Your task to perform on an android device: Open battery settings Image 0: 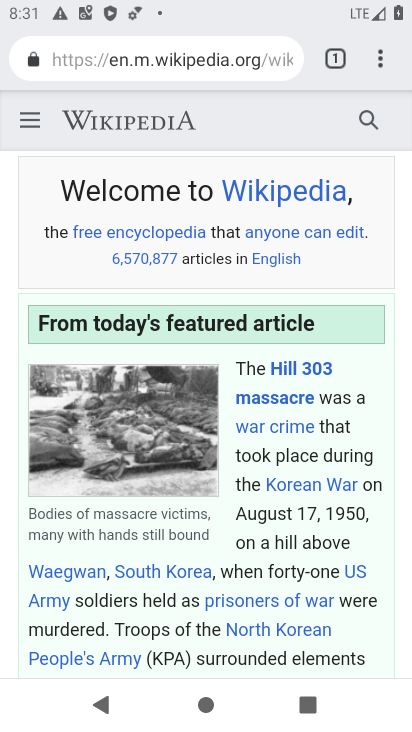
Step 0: press home button
Your task to perform on an android device: Open battery settings Image 1: 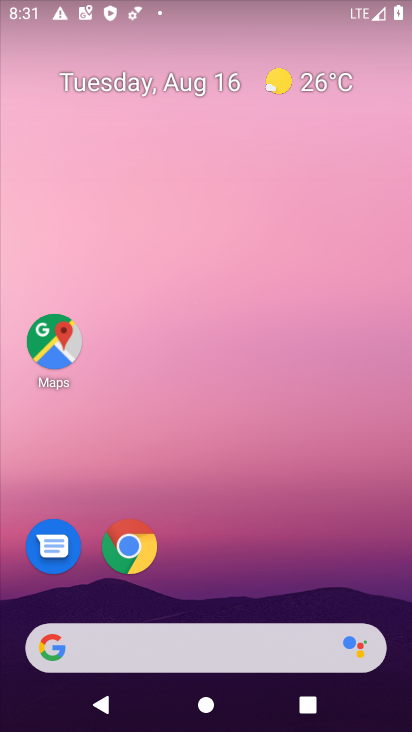
Step 1: drag from (224, 578) to (248, 12)
Your task to perform on an android device: Open battery settings Image 2: 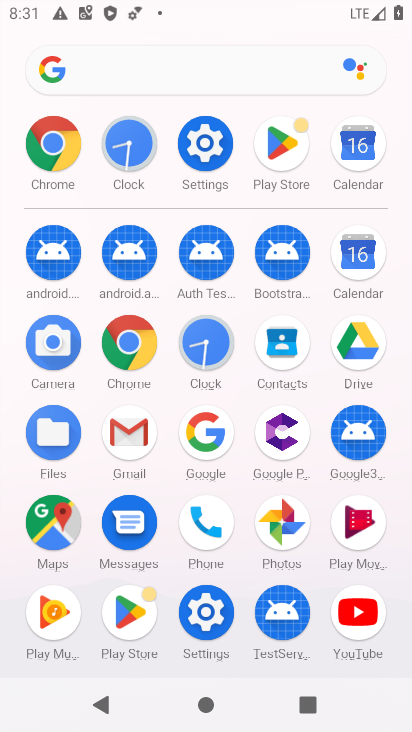
Step 2: click (208, 131)
Your task to perform on an android device: Open battery settings Image 3: 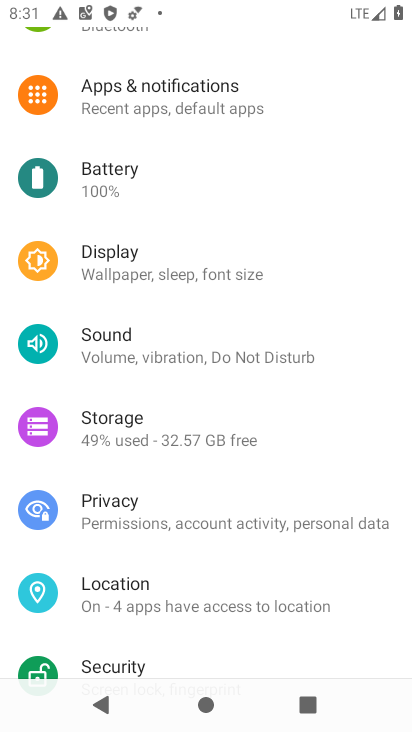
Step 3: click (146, 180)
Your task to perform on an android device: Open battery settings Image 4: 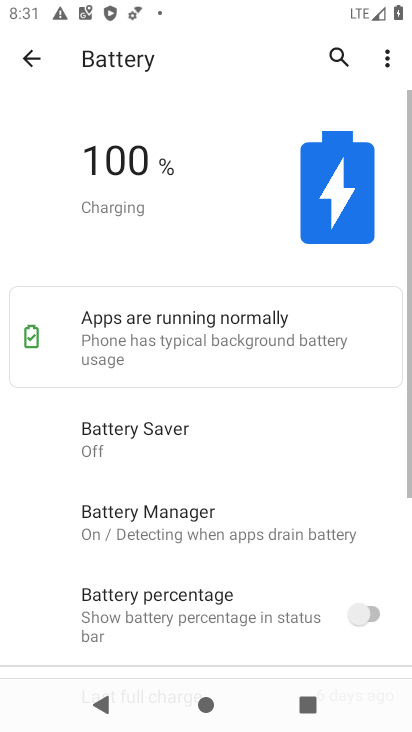
Step 4: task complete